Your task to perform on an android device: Open Reddit.com Image 0: 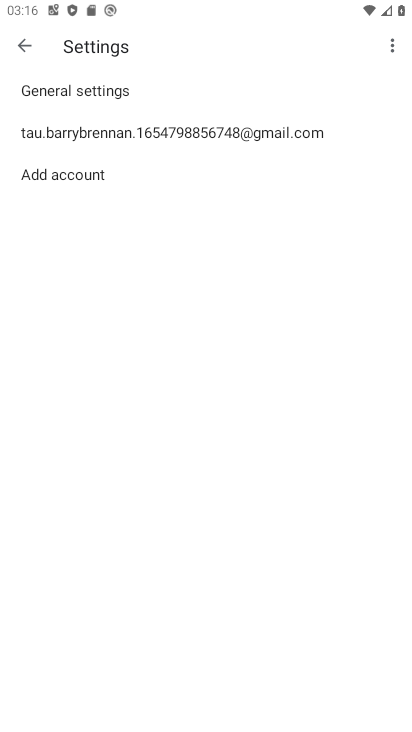
Step 0: drag from (339, 477) to (336, 365)
Your task to perform on an android device: Open Reddit.com Image 1: 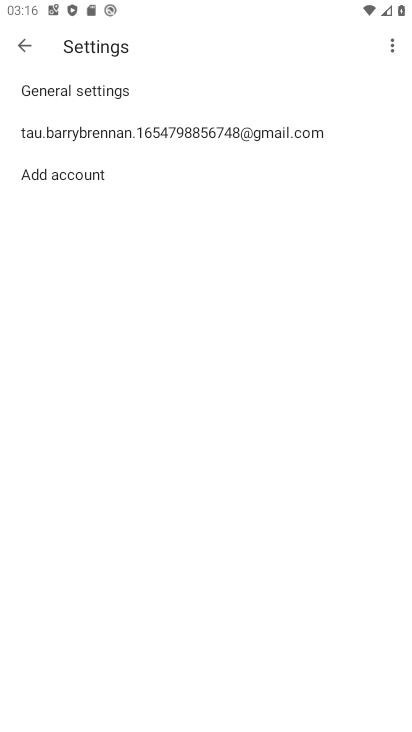
Step 1: drag from (331, 543) to (331, 253)
Your task to perform on an android device: Open Reddit.com Image 2: 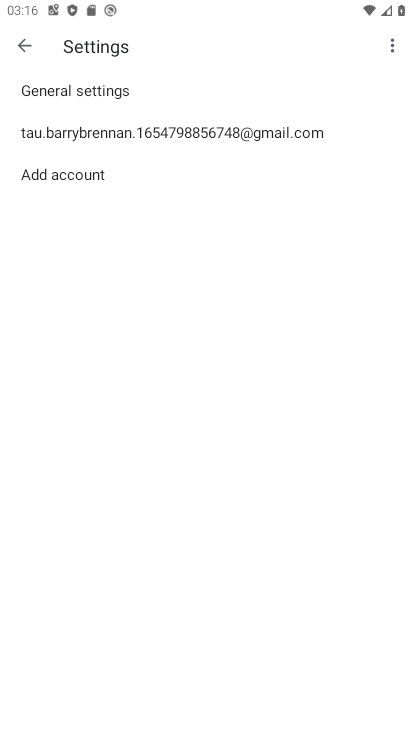
Step 2: drag from (291, 599) to (283, 238)
Your task to perform on an android device: Open Reddit.com Image 3: 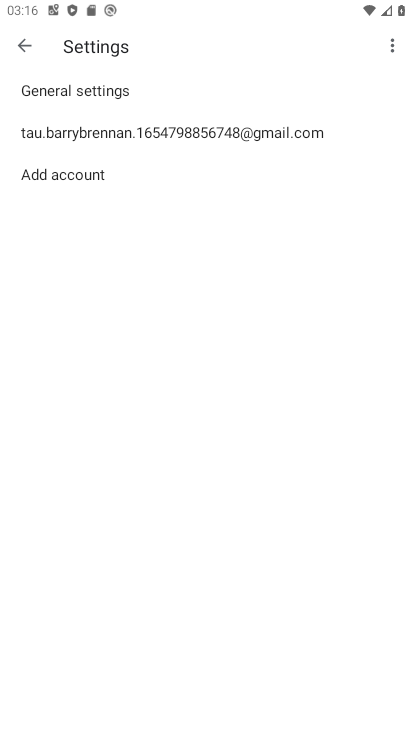
Step 3: click (16, 46)
Your task to perform on an android device: Open Reddit.com Image 4: 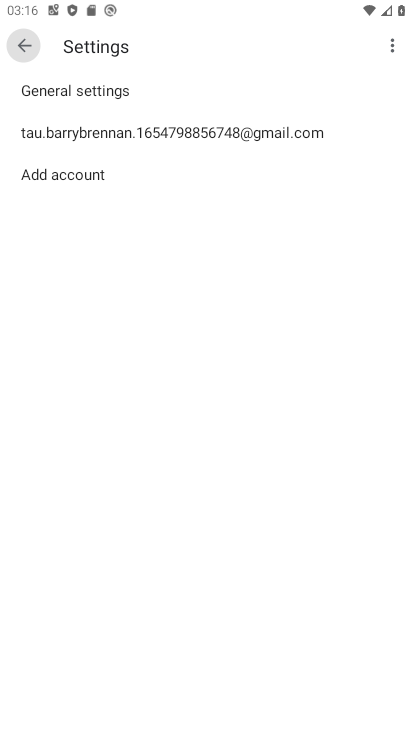
Step 4: click (16, 43)
Your task to perform on an android device: Open Reddit.com Image 5: 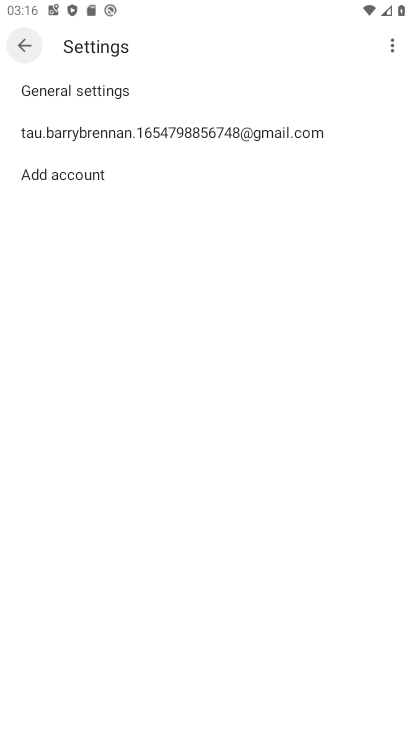
Step 5: click (16, 43)
Your task to perform on an android device: Open Reddit.com Image 6: 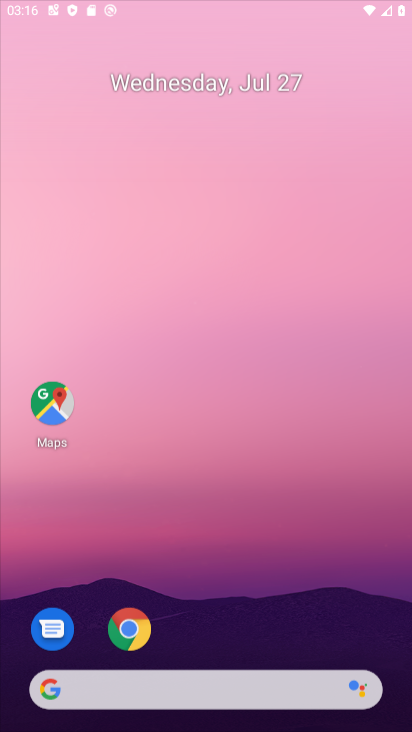
Step 6: click (18, 39)
Your task to perform on an android device: Open Reddit.com Image 7: 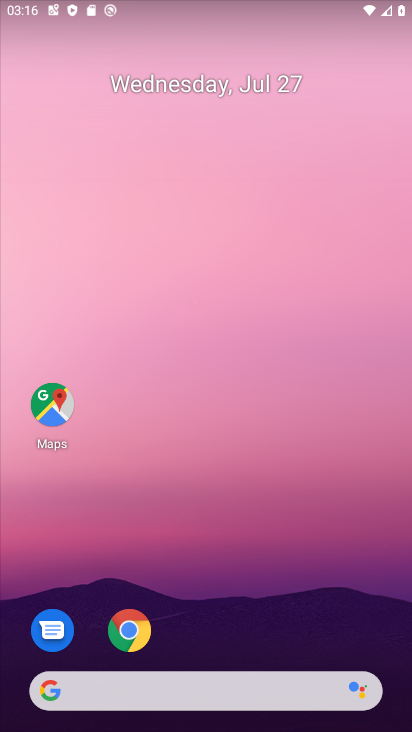
Step 7: drag from (199, 594) to (156, 248)
Your task to perform on an android device: Open Reddit.com Image 8: 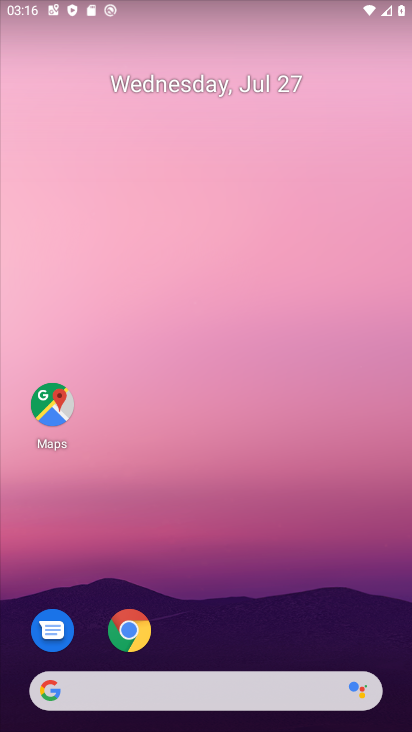
Step 8: drag from (300, 501) to (223, 112)
Your task to perform on an android device: Open Reddit.com Image 9: 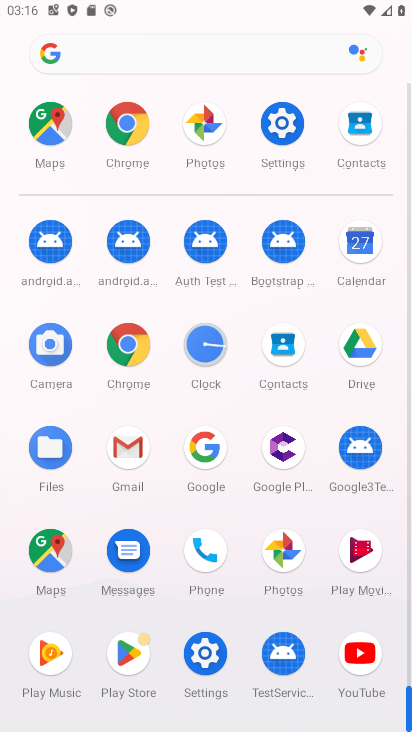
Step 9: drag from (314, 544) to (263, 150)
Your task to perform on an android device: Open Reddit.com Image 10: 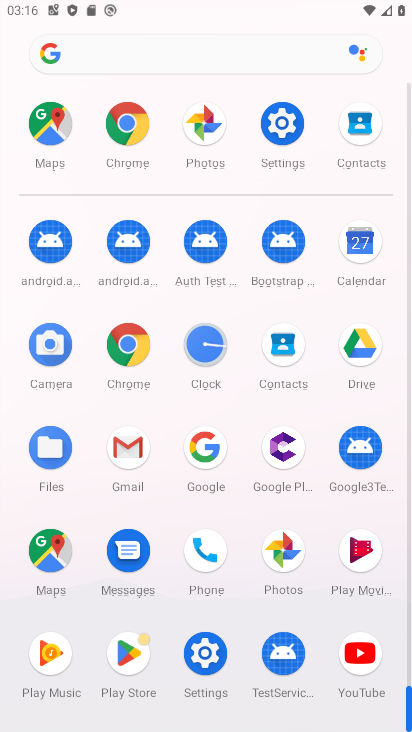
Step 10: click (131, 123)
Your task to perform on an android device: Open Reddit.com Image 11: 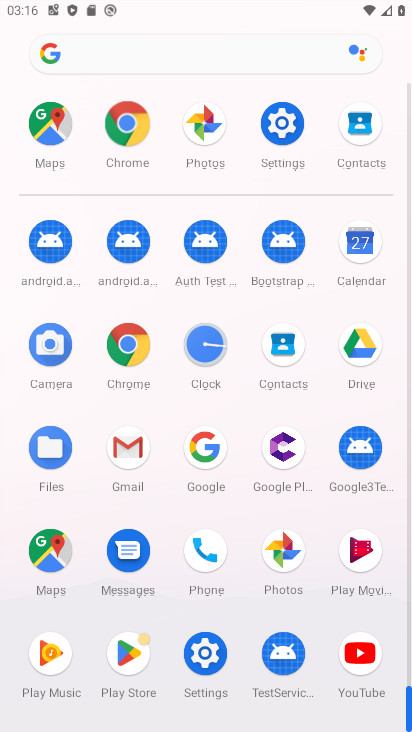
Step 11: click (131, 123)
Your task to perform on an android device: Open Reddit.com Image 12: 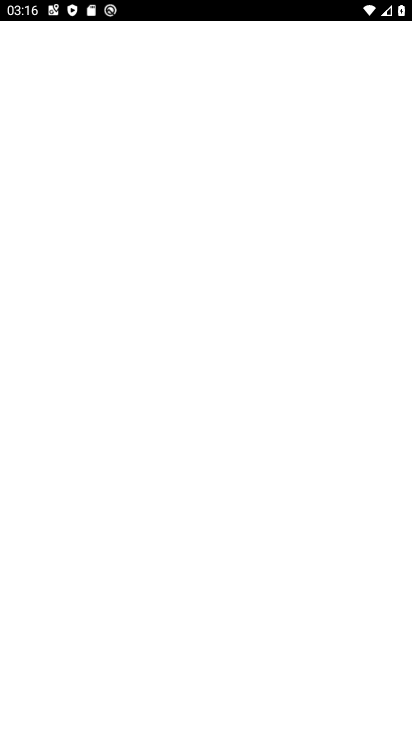
Step 12: click (131, 123)
Your task to perform on an android device: Open Reddit.com Image 13: 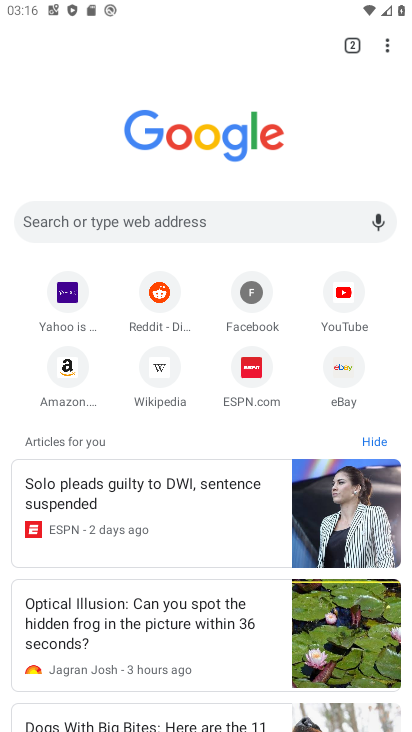
Step 13: click (87, 222)
Your task to perform on an android device: Open Reddit.com Image 14: 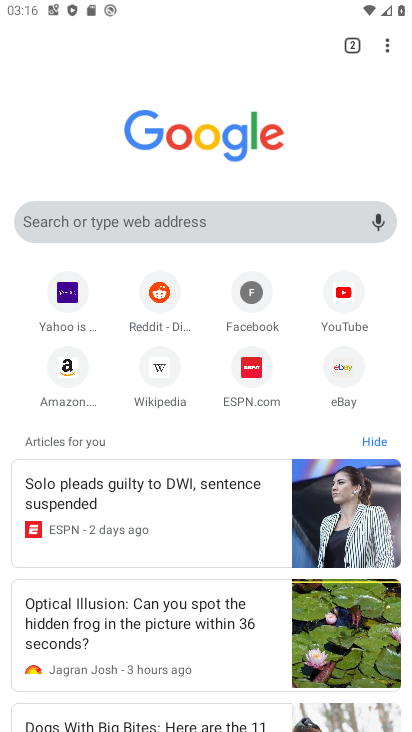
Step 14: click (93, 226)
Your task to perform on an android device: Open Reddit.com Image 15: 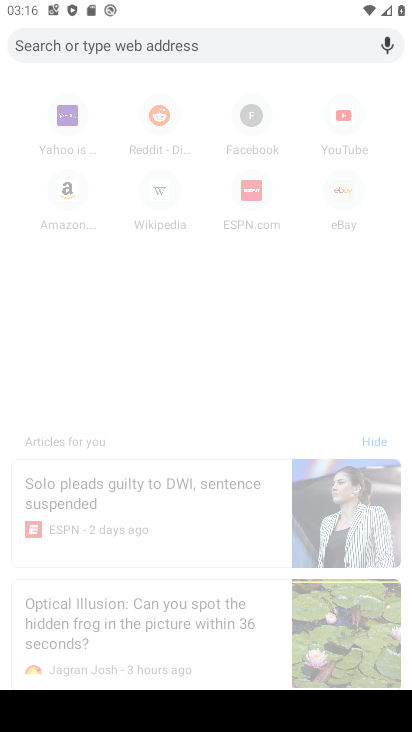
Step 15: click (164, 111)
Your task to perform on an android device: Open Reddit.com Image 16: 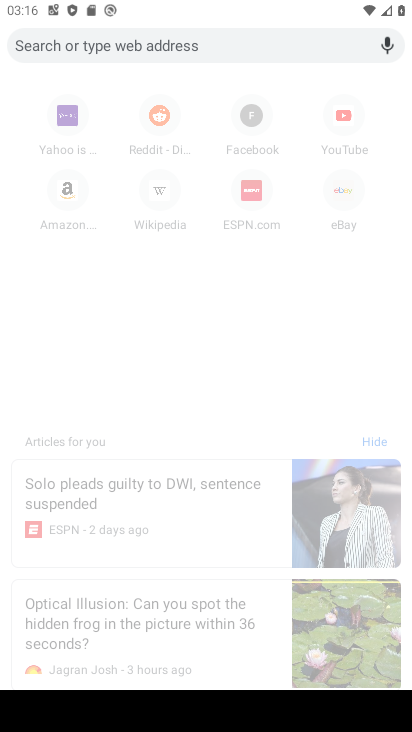
Step 16: click (169, 120)
Your task to perform on an android device: Open Reddit.com Image 17: 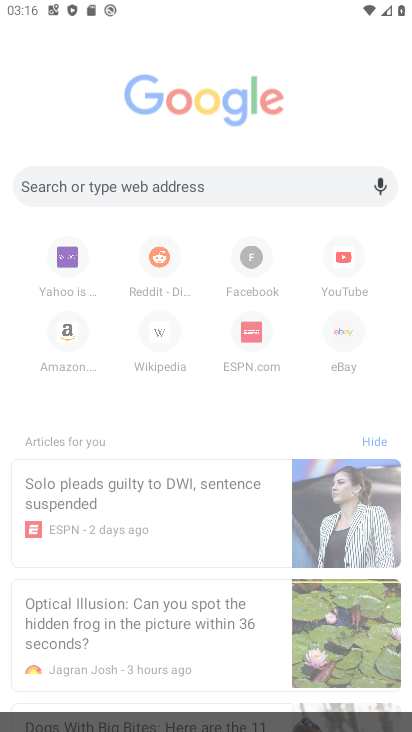
Step 17: click (171, 122)
Your task to perform on an android device: Open Reddit.com Image 18: 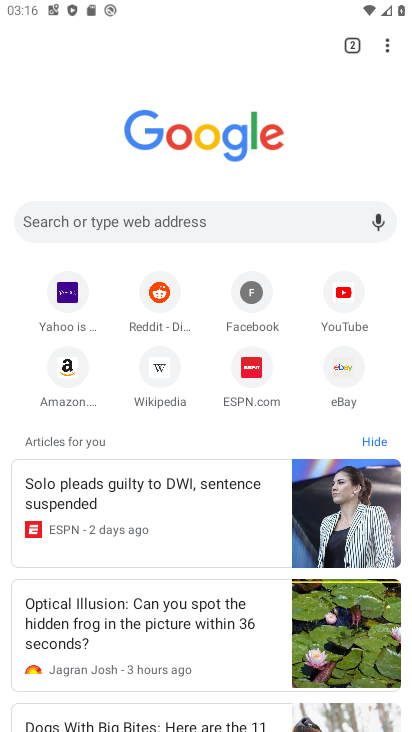
Step 18: click (171, 121)
Your task to perform on an android device: Open Reddit.com Image 19: 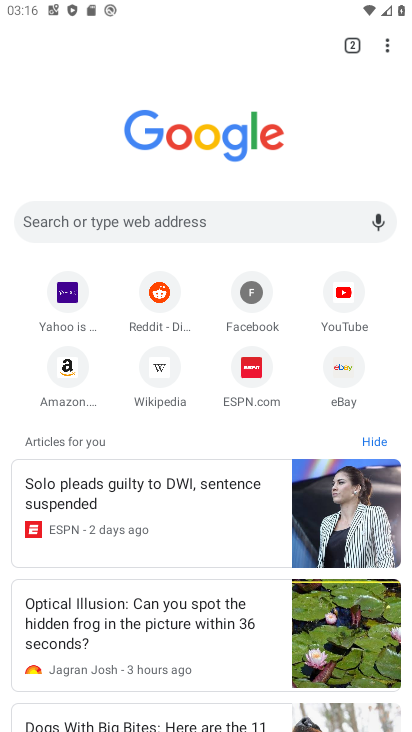
Step 19: click (172, 122)
Your task to perform on an android device: Open Reddit.com Image 20: 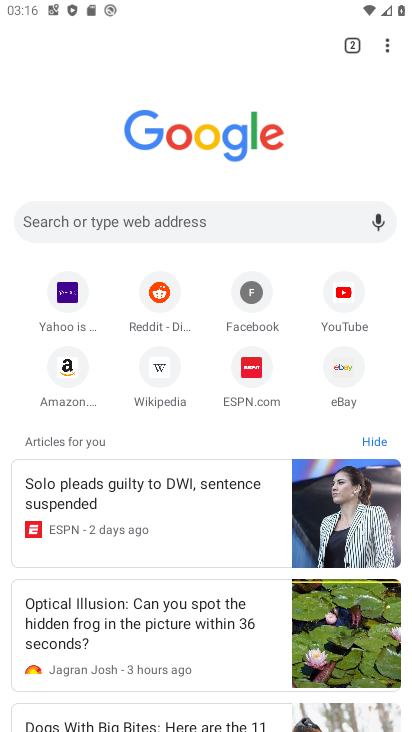
Step 20: click (178, 281)
Your task to perform on an android device: Open Reddit.com Image 21: 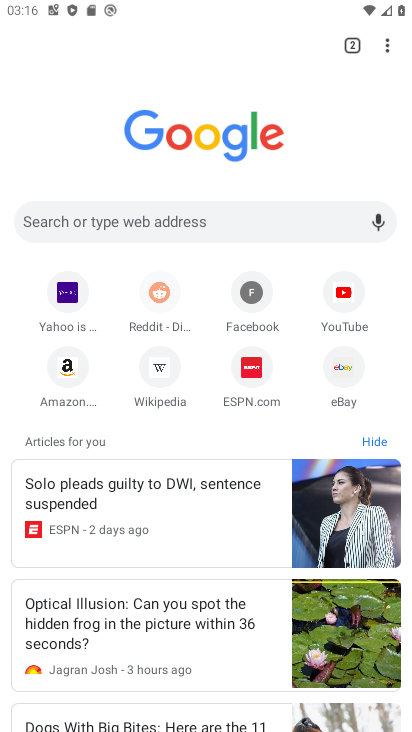
Step 21: click (176, 297)
Your task to perform on an android device: Open Reddit.com Image 22: 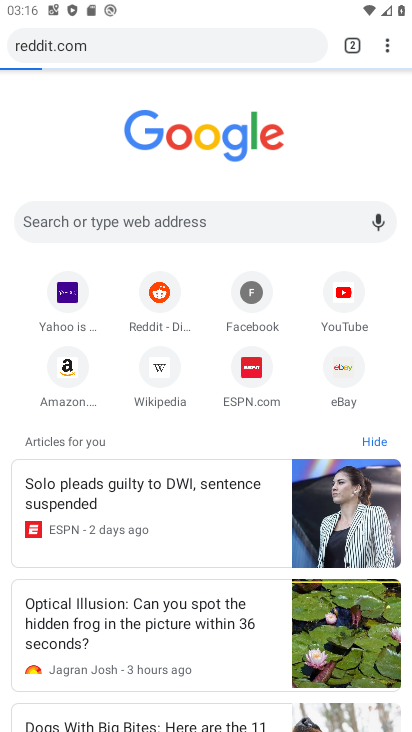
Step 22: click (178, 298)
Your task to perform on an android device: Open Reddit.com Image 23: 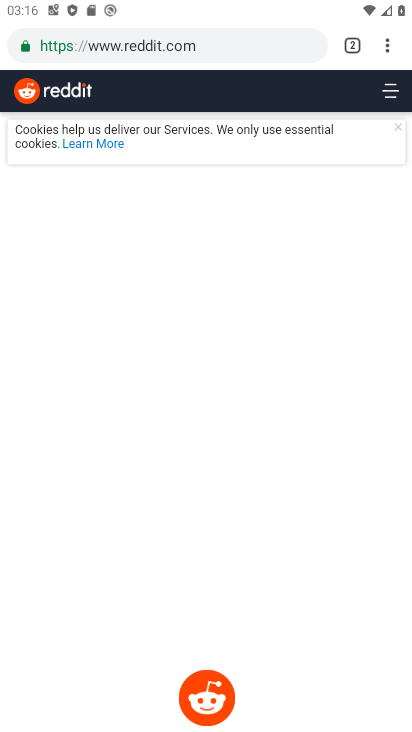
Step 23: task complete